Your task to perform on an android device: Open settings on Google Maps Image 0: 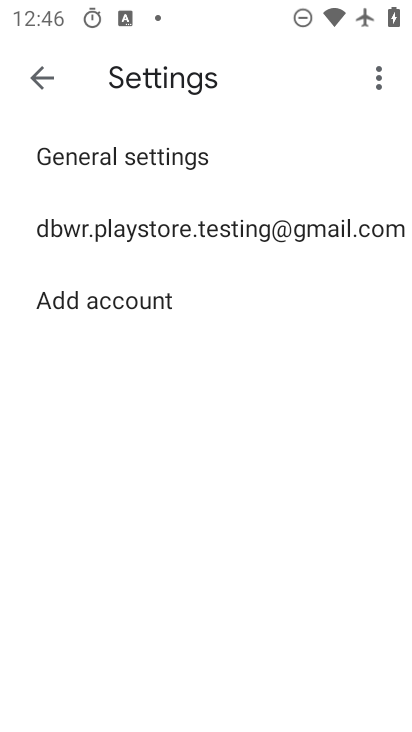
Step 0: drag from (244, 616) to (253, 405)
Your task to perform on an android device: Open settings on Google Maps Image 1: 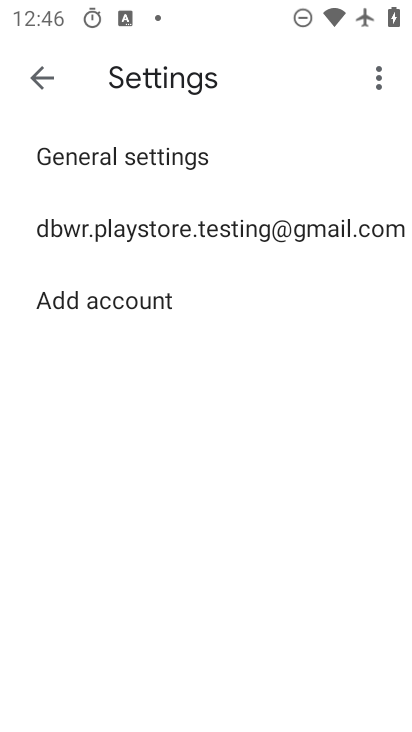
Step 1: press home button
Your task to perform on an android device: Open settings on Google Maps Image 2: 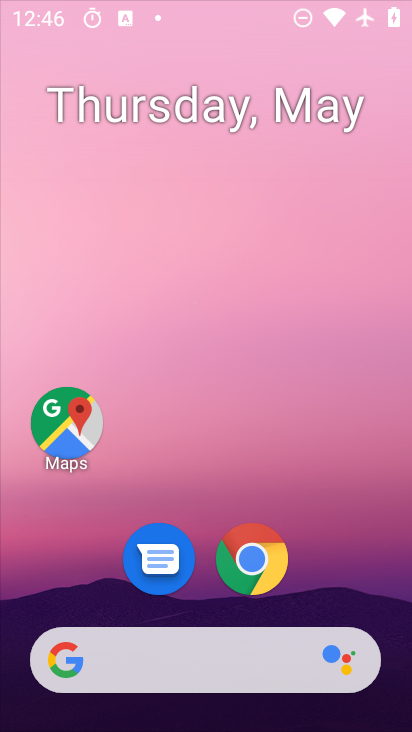
Step 2: drag from (199, 614) to (212, 266)
Your task to perform on an android device: Open settings on Google Maps Image 3: 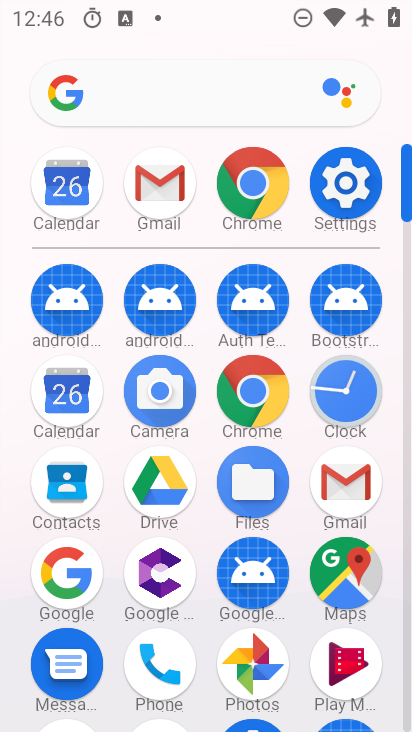
Step 3: click (345, 569)
Your task to perform on an android device: Open settings on Google Maps Image 4: 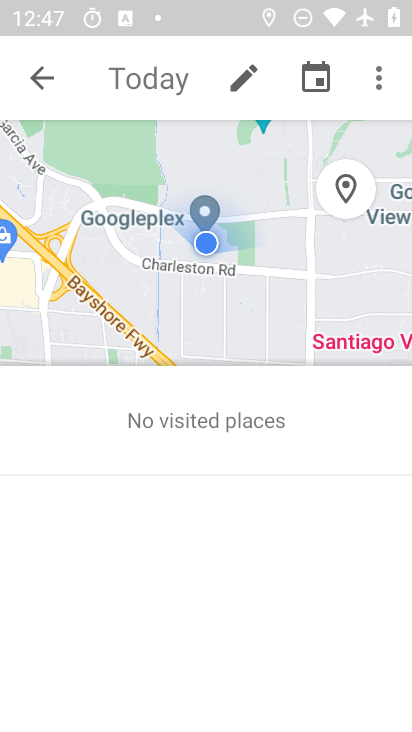
Step 4: task complete